Your task to perform on an android device: Open Maps and search for coffee Image 0: 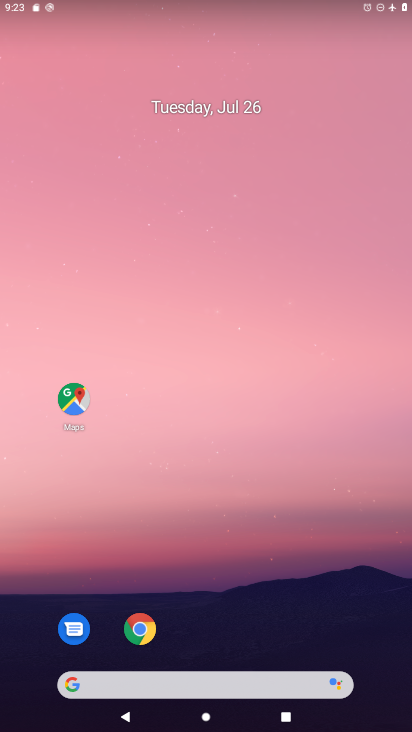
Step 0: click (65, 395)
Your task to perform on an android device: Open Maps and search for coffee Image 1: 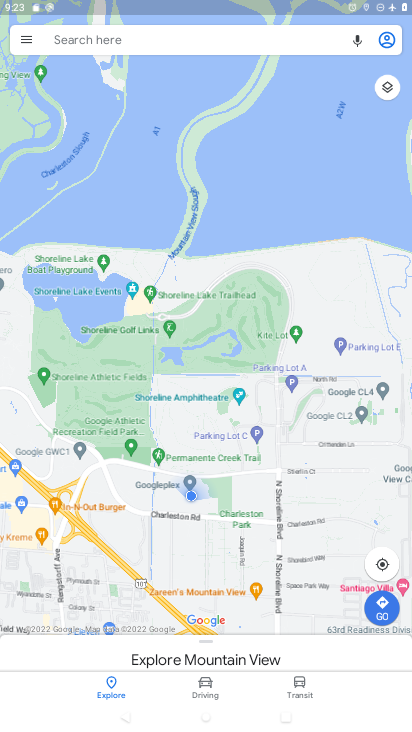
Step 1: click (117, 49)
Your task to perform on an android device: Open Maps and search for coffee Image 2: 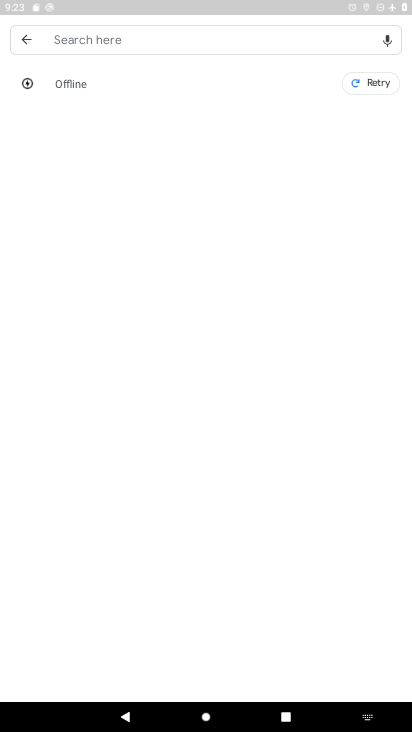
Step 2: type "coffee"
Your task to perform on an android device: Open Maps and search for coffee Image 3: 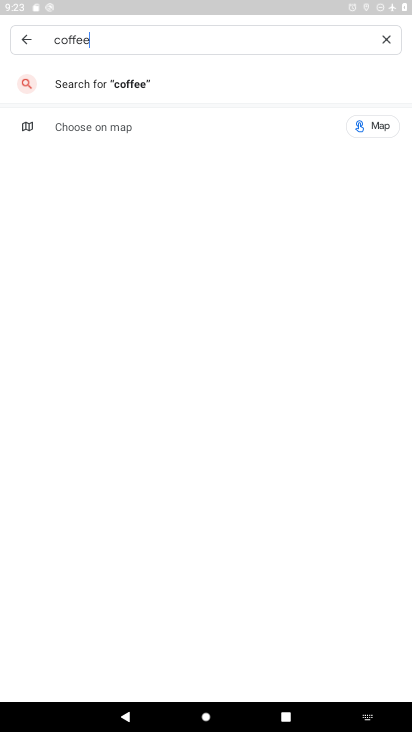
Step 3: type ""
Your task to perform on an android device: Open Maps and search for coffee Image 4: 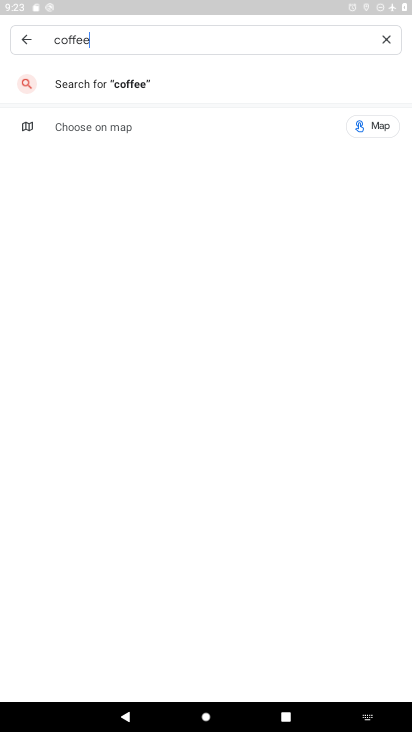
Step 4: click (96, 88)
Your task to perform on an android device: Open Maps and search for coffee Image 5: 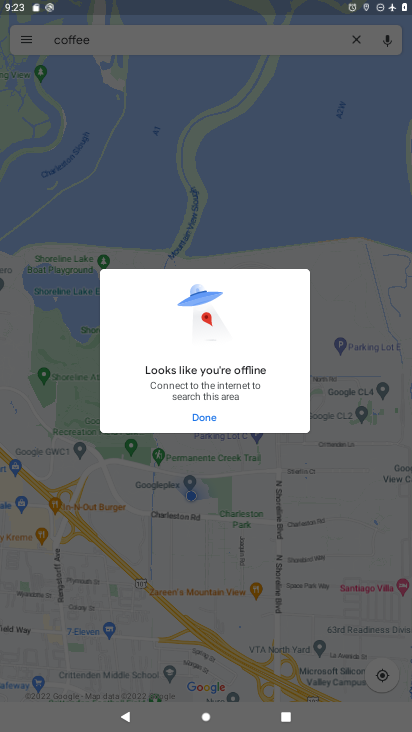
Step 5: task complete